Your task to perform on an android device: Do I have any events today? Image 0: 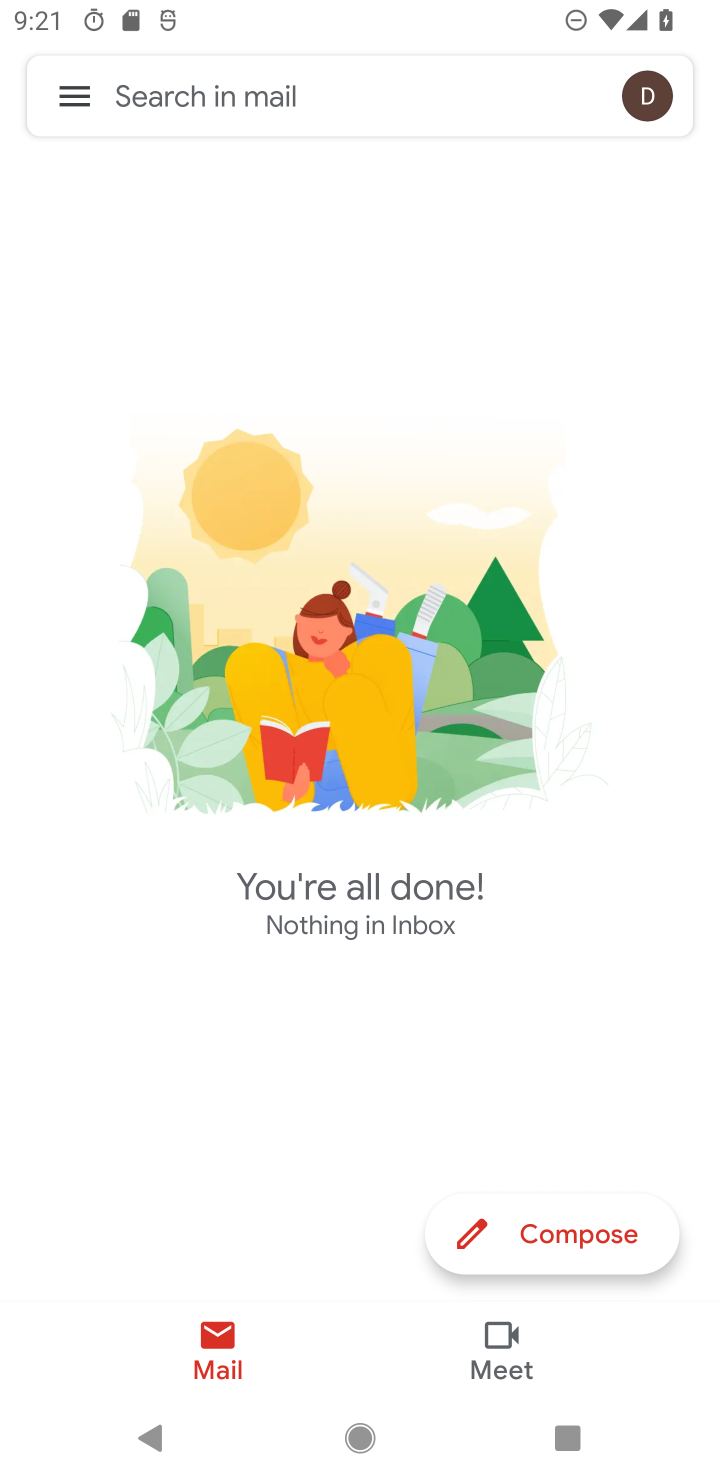
Step 0: press home button
Your task to perform on an android device: Do I have any events today? Image 1: 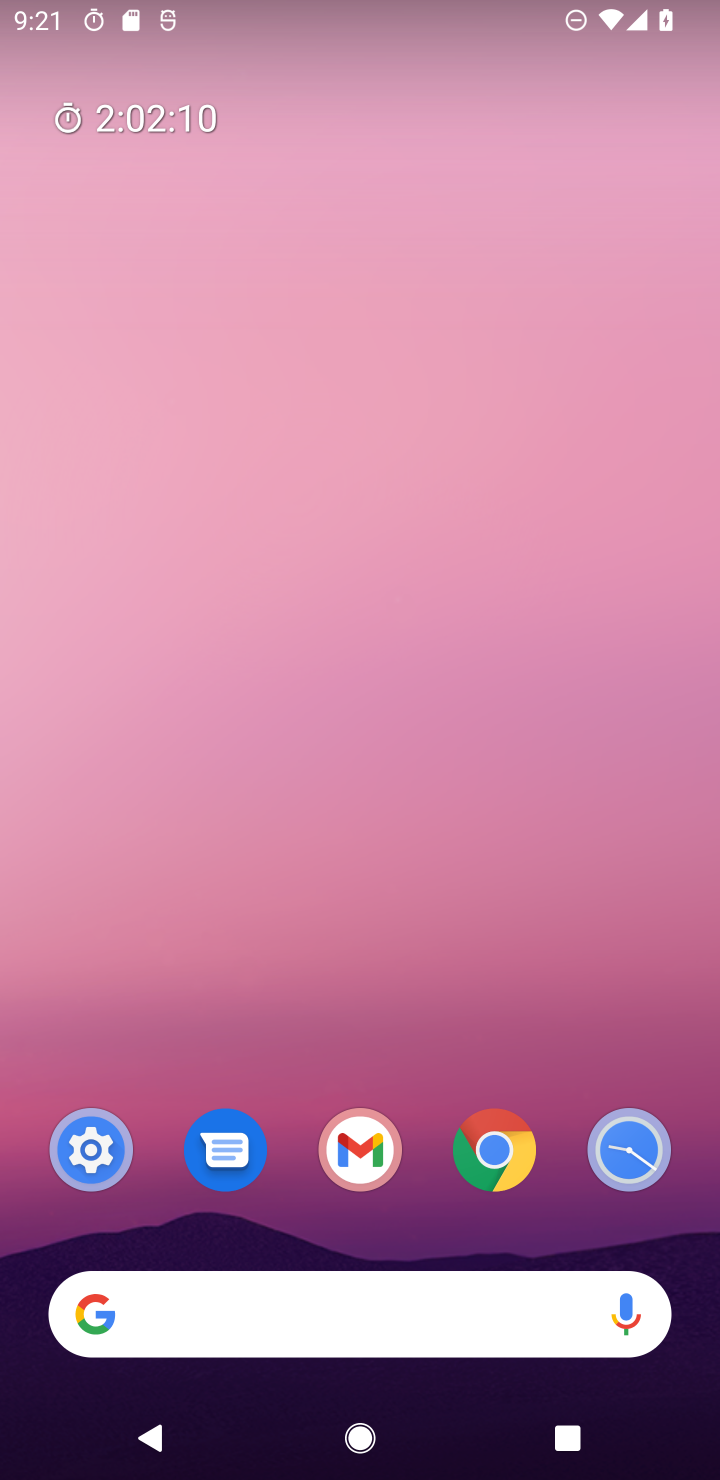
Step 1: drag from (392, 1310) to (297, 234)
Your task to perform on an android device: Do I have any events today? Image 2: 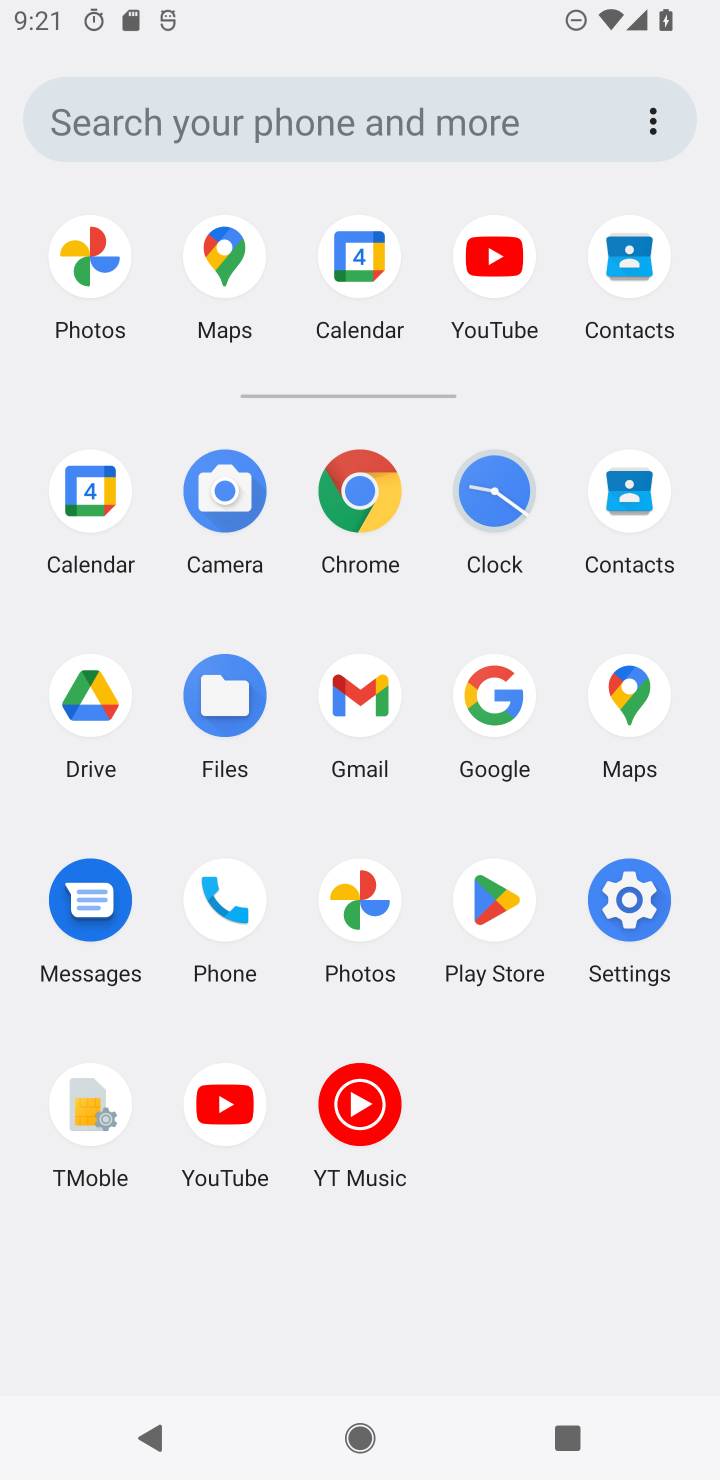
Step 2: click (99, 492)
Your task to perform on an android device: Do I have any events today? Image 3: 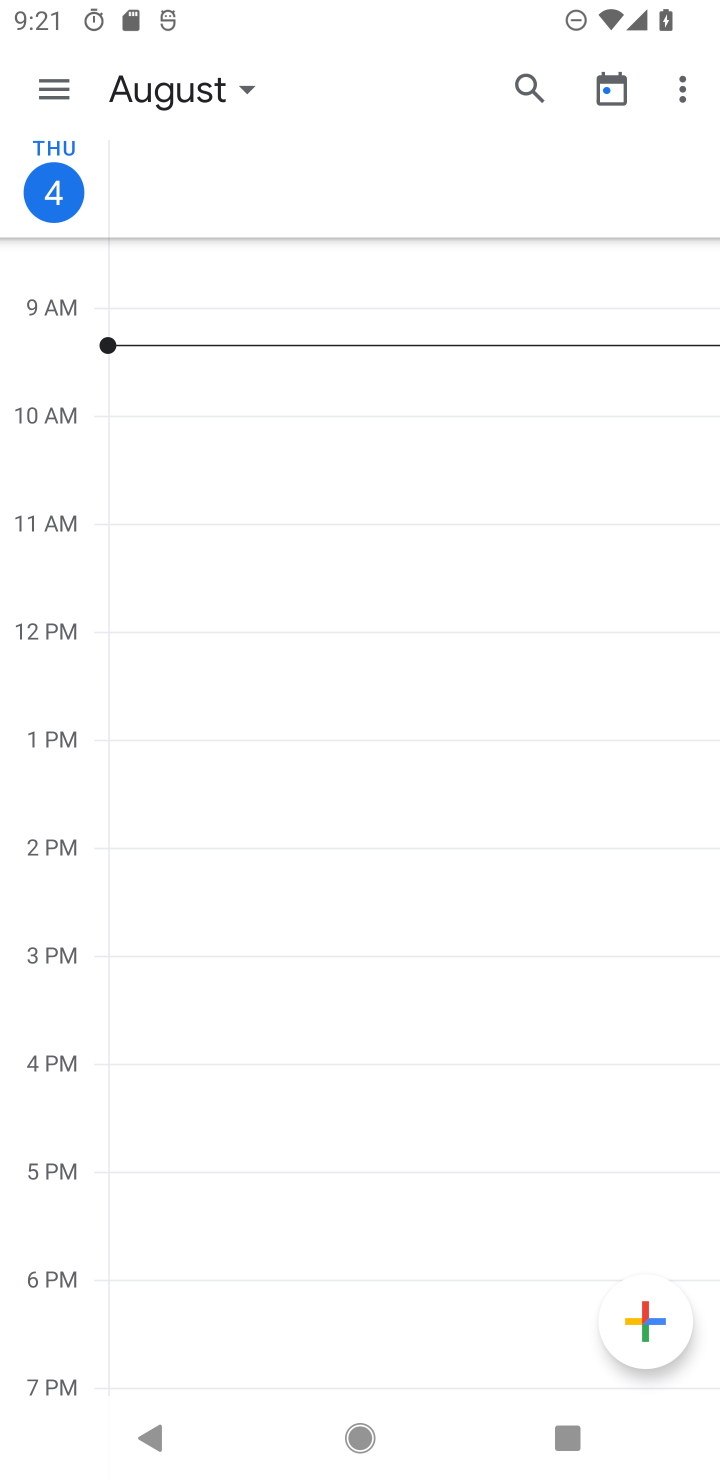
Step 3: click (246, 83)
Your task to perform on an android device: Do I have any events today? Image 4: 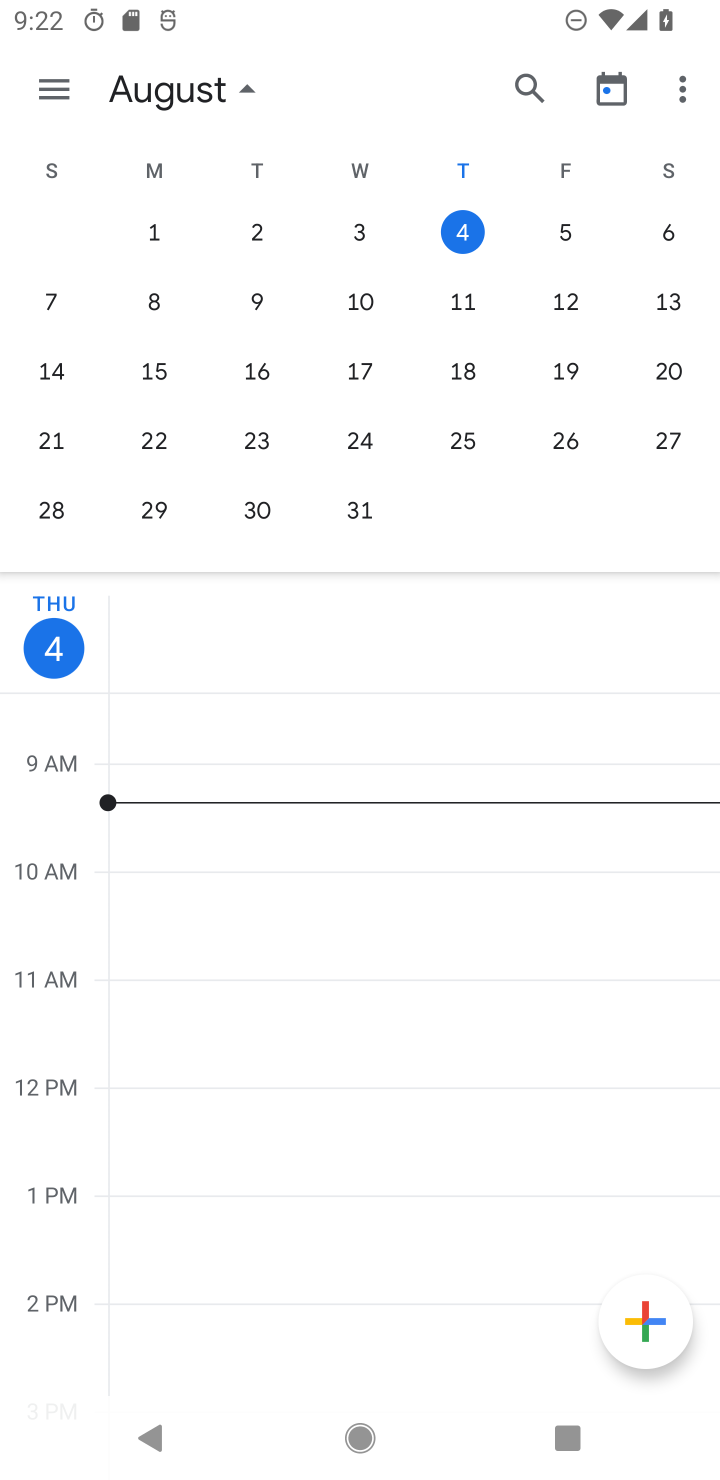
Step 4: click (457, 212)
Your task to perform on an android device: Do I have any events today? Image 5: 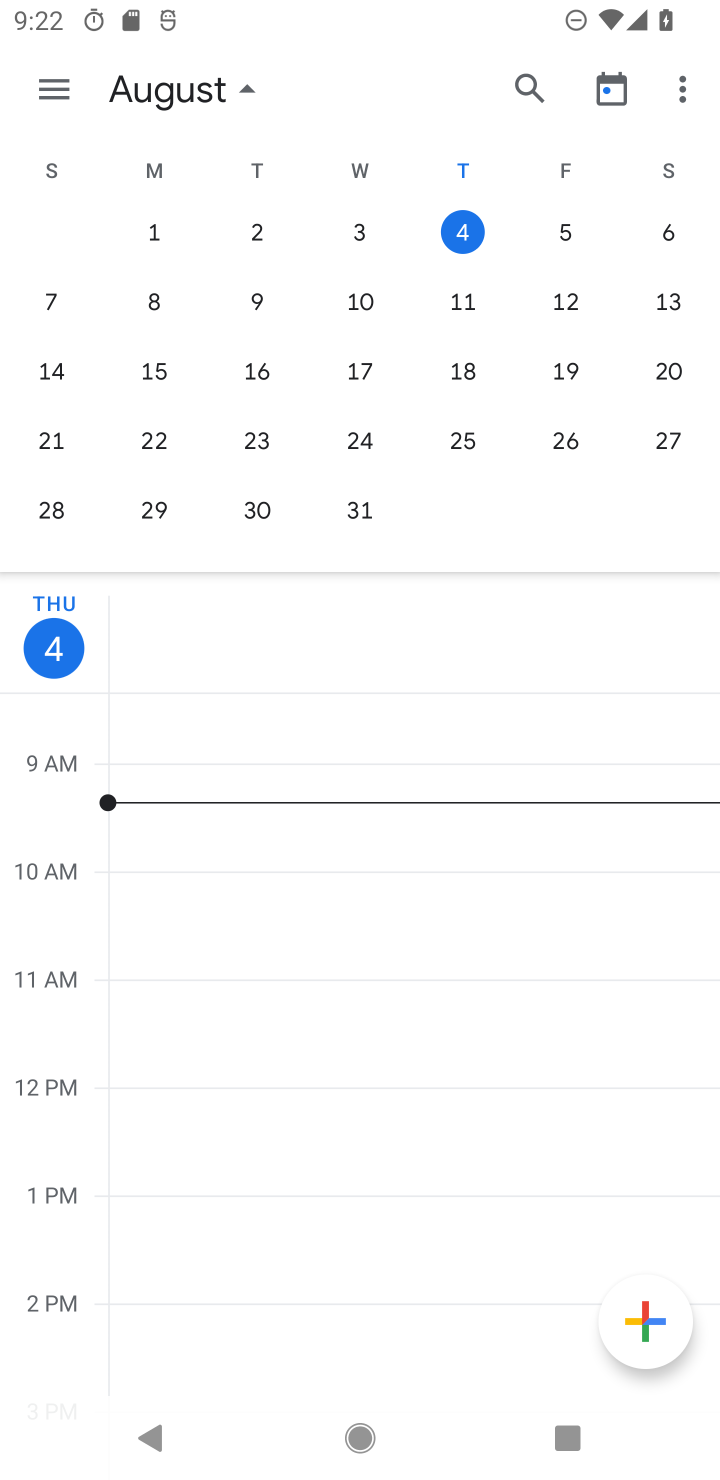
Step 5: task complete